Your task to perform on an android device: turn off picture-in-picture Image 0: 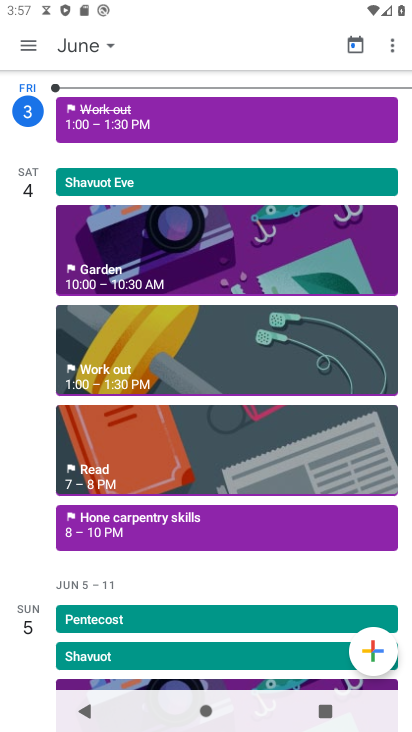
Step 0: press home button
Your task to perform on an android device: turn off picture-in-picture Image 1: 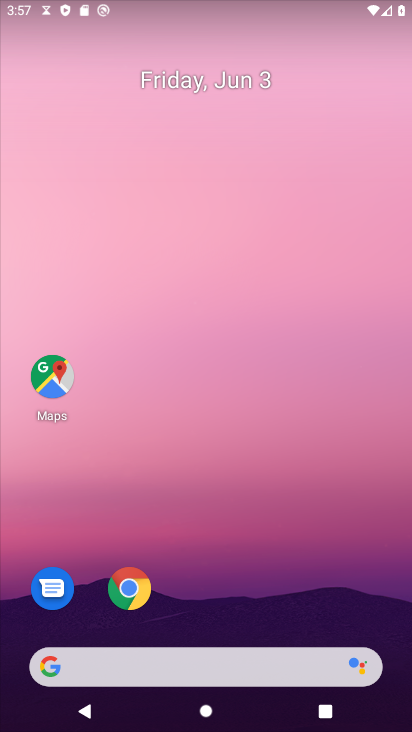
Step 1: click (145, 593)
Your task to perform on an android device: turn off picture-in-picture Image 2: 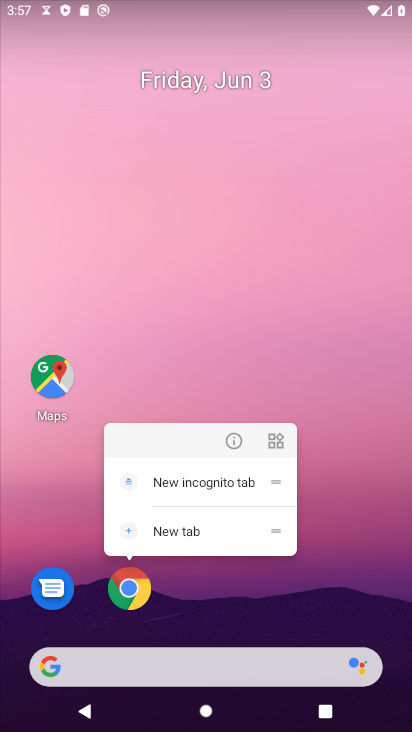
Step 2: click (227, 449)
Your task to perform on an android device: turn off picture-in-picture Image 3: 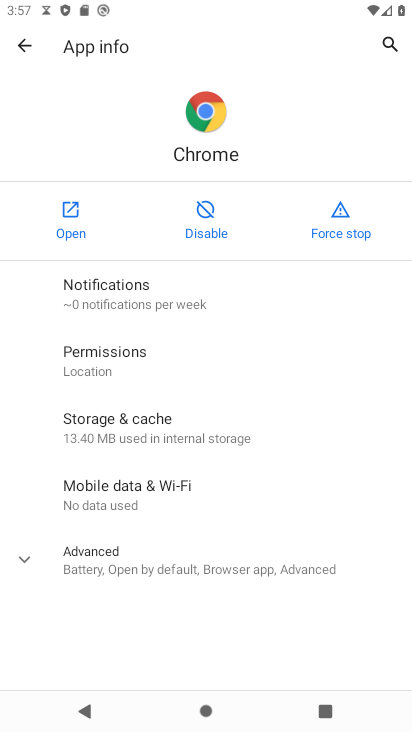
Step 3: click (252, 567)
Your task to perform on an android device: turn off picture-in-picture Image 4: 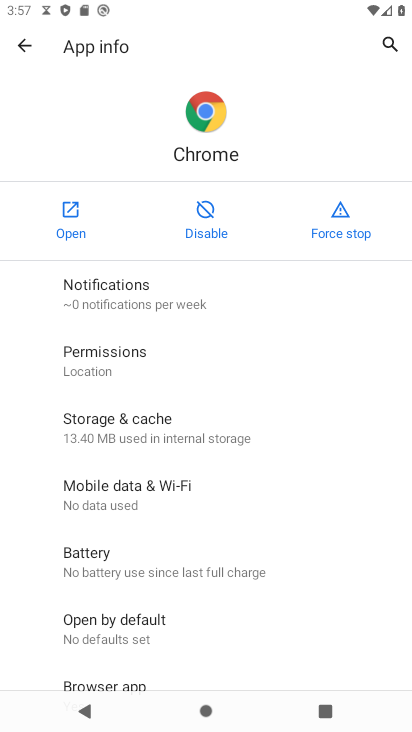
Step 4: drag from (274, 657) to (237, 279)
Your task to perform on an android device: turn off picture-in-picture Image 5: 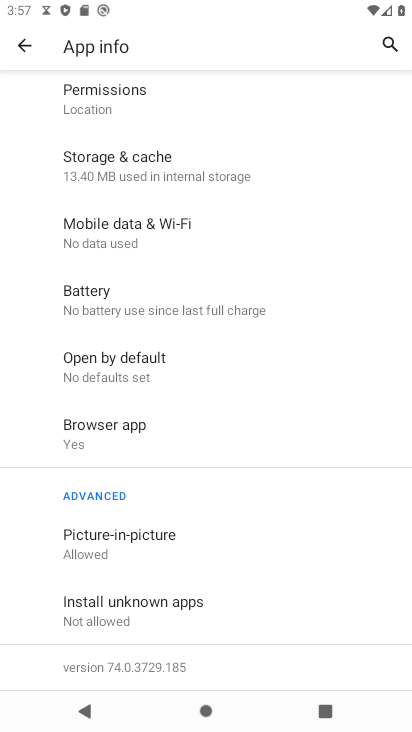
Step 5: click (244, 542)
Your task to perform on an android device: turn off picture-in-picture Image 6: 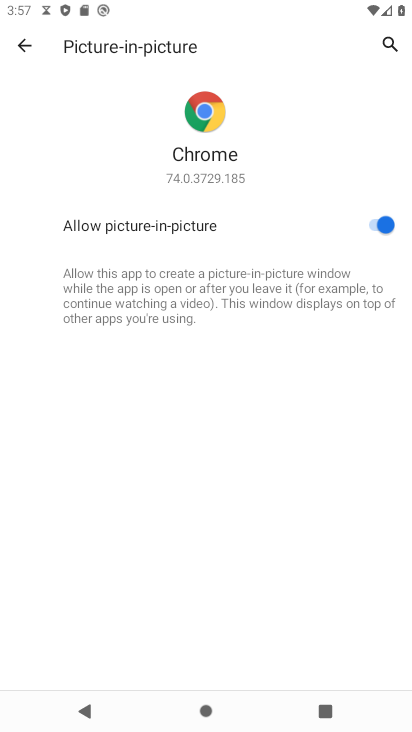
Step 6: click (381, 224)
Your task to perform on an android device: turn off picture-in-picture Image 7: 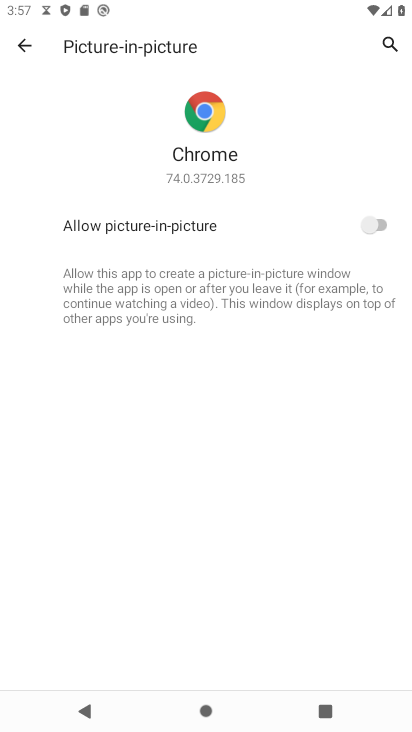
Step 7: task complete